Your task to perform on an android device: Search for sushi restaurants on Maps Image 0: 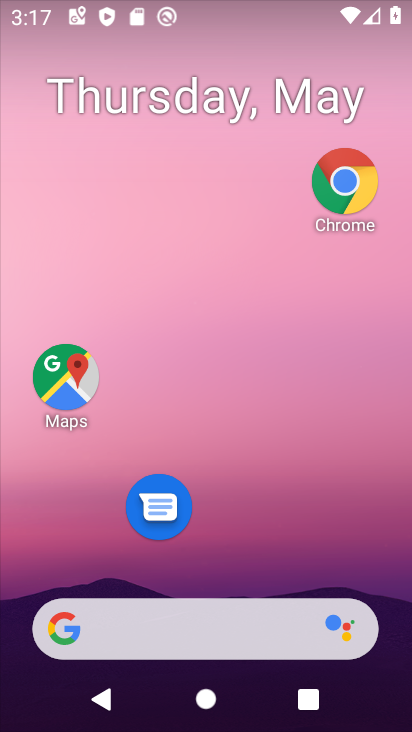
Step 0: drag from (228, 536) to (224, 101)
Your task to perform on an android device: Search for sushi restaurants on Maps Image 1: 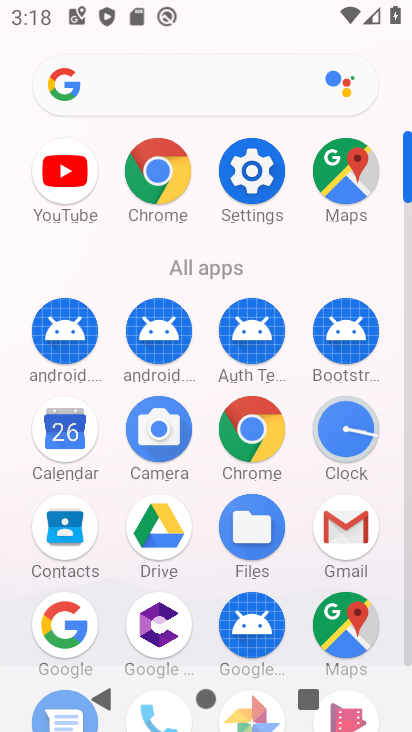
Step 1: click (341, 615)
Your task to perform on an android device: Search for sushi restaurants on Maps Image 2: 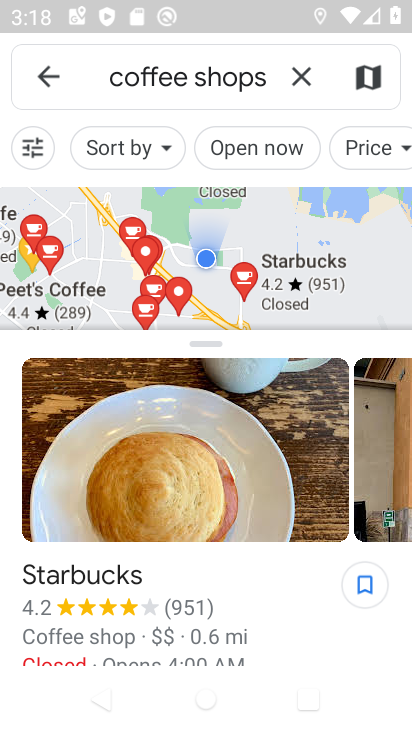
Step 2: click (299, 76)
Your task to perform on an android device: Search for sushi restaurants on Maps Image 3: 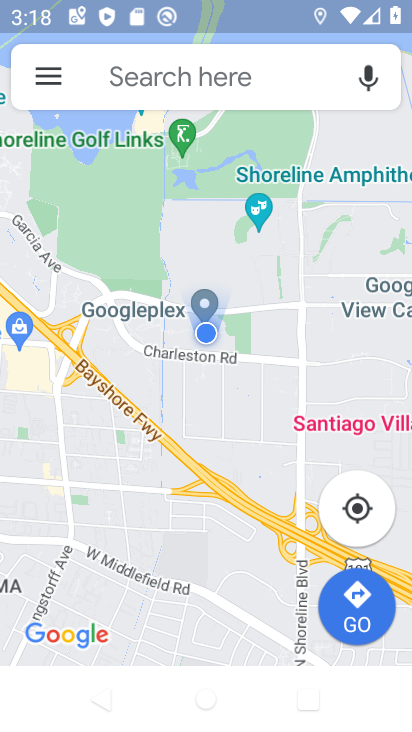
Step 3: click (243, 81)
Your task to perform on an android device: Search for sushi restaurants on Maps Image 4: 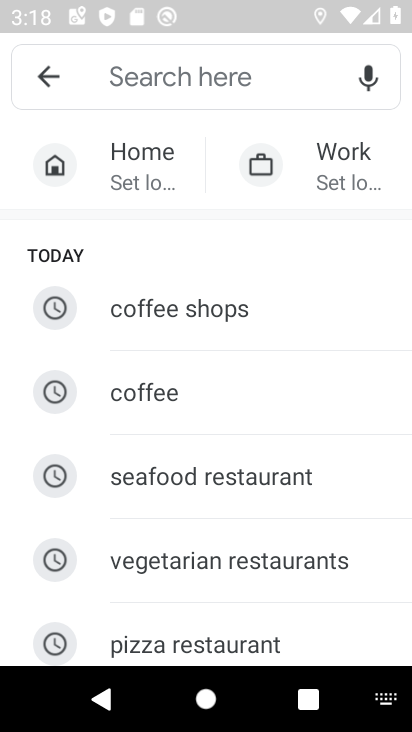
Step 4: type " sushi restaurants "
Your task to perform on an android device: Search for sushi restaurants on Maps Image 5: 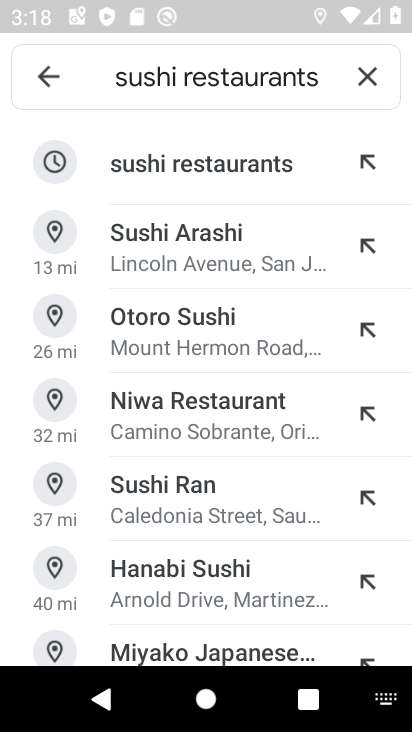
Step 5: click (163, 168)
Your task to perform on an android device: Search for sushi restaurants on Maps Image 6: 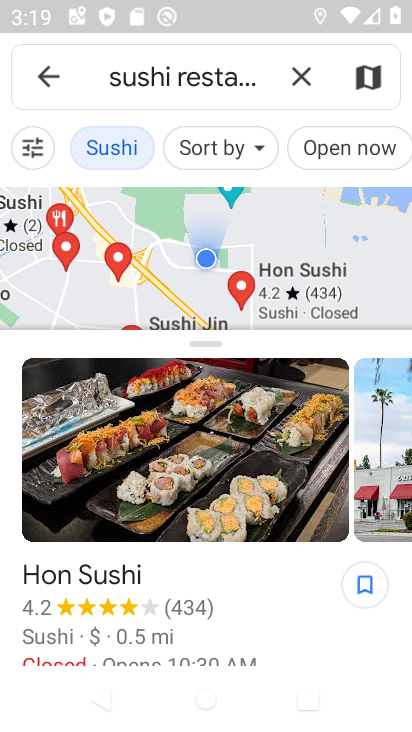
Step 6: task complete